Your task to perform on an android device: toggle wifi Image 0: 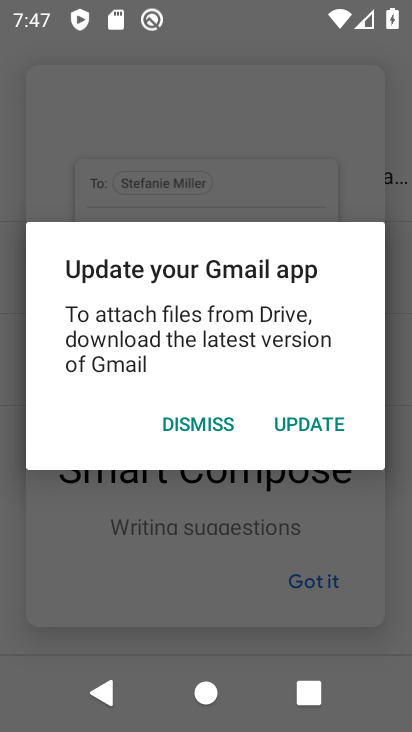
Step 0: press home button
Your task to perform on an android device: toggle wifi Image 1: 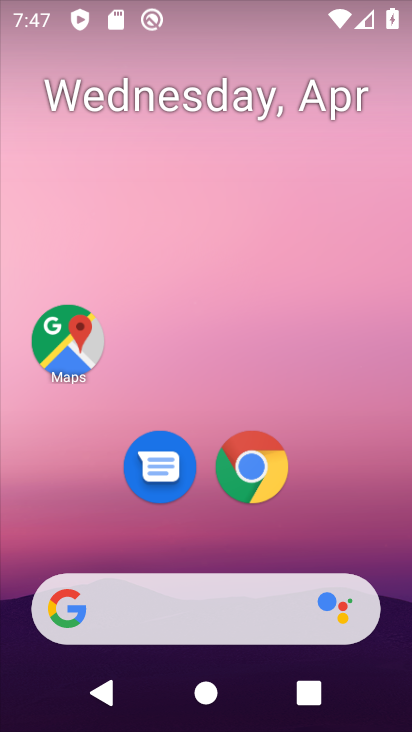
Step 1: drag from (215, 553) to (189, 34)
Your task to perform on an android device: toggle wifi Image 2: 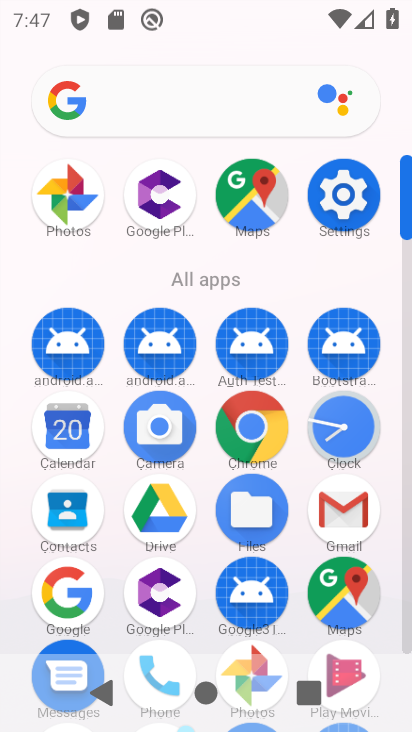
Step 2: click (328, 209)
Your task to perform on an android device: toggle wifi Image 3: 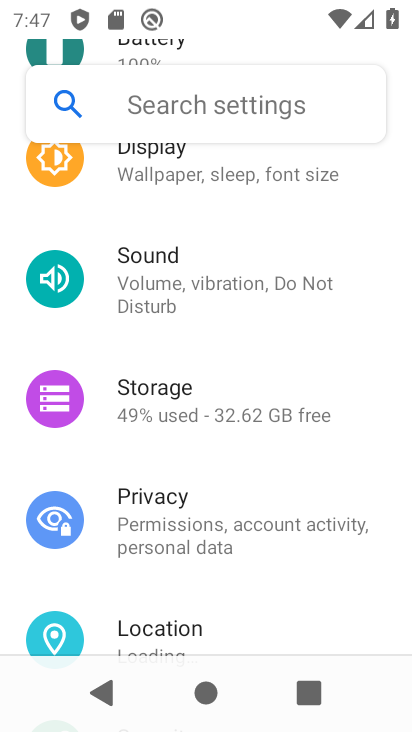
Step 3: drag from (325, 209) to (300, 579)
Your task to perform on an android device: toggle wifi Image 4: 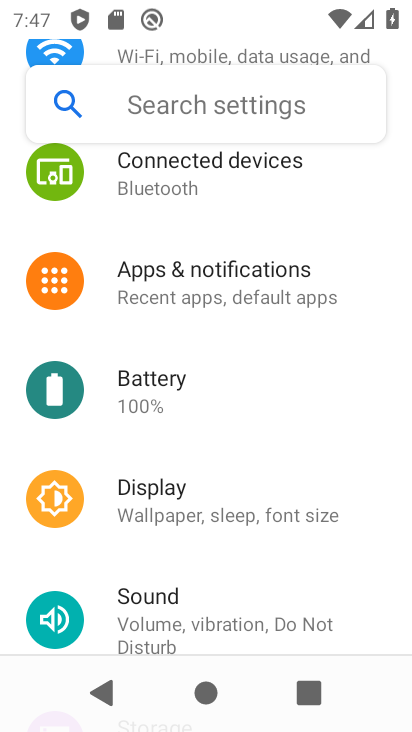
Step 4: drag from (176, 222) to (170, 476)
Your task to perform on an android device: toggle wifi Image 5: 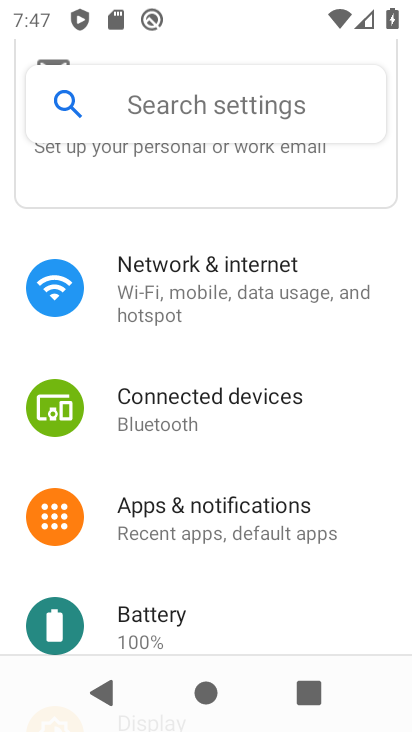
Step 5: click (174, 280)
Your task to perform on an android device: toggle wifi Image 6: 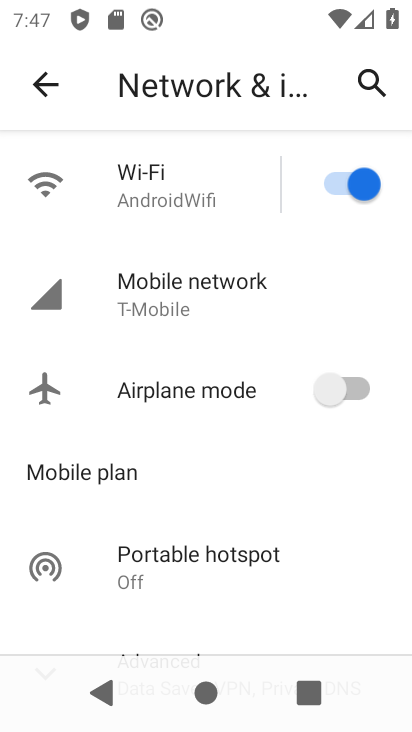
Step 6: click (338, 171)
Your task to perform on an android device: toggle wifi Image 7: 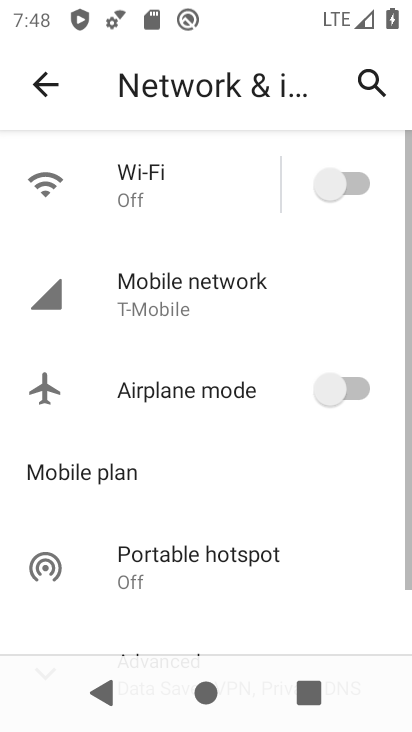
Step 7: task complete